Your task to perform on an android device: turn off airplane mode Image 0: 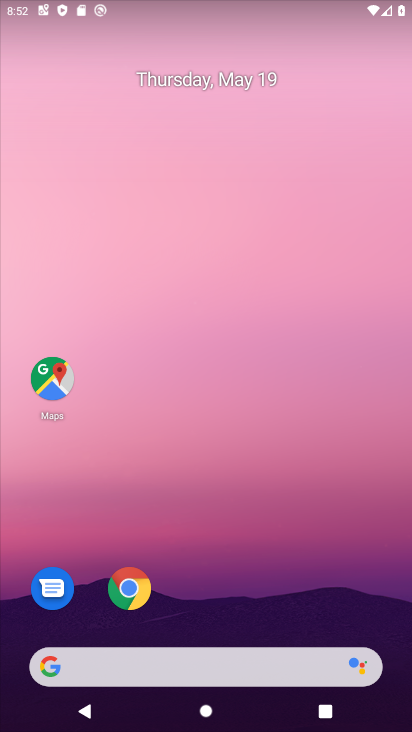
Step 0: drag from (239, 662) to (163, 9)
Your task to perform on an android device: turn off airplane mode Image 1: 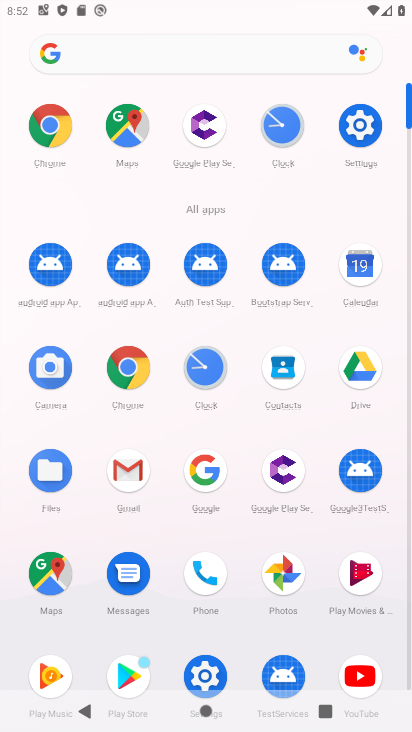
Step 1: click (372, 124)
Your task to perform on an android device: turn off airplane mode Image 2: 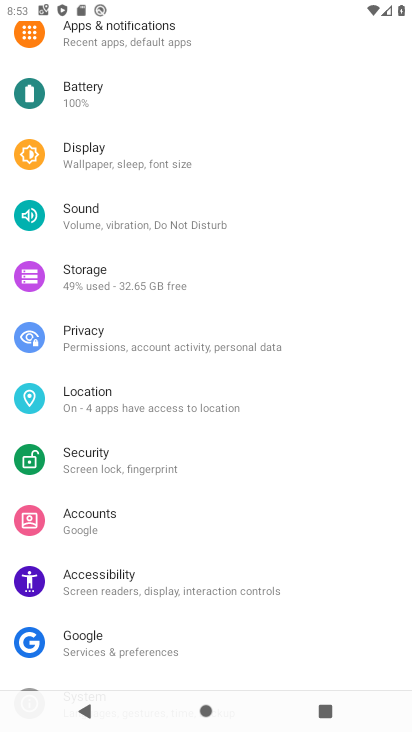
Step 2: drag from (192, 67) to (160, 718)
Your task to perform on an android device: turn off airplane mode Image 3: 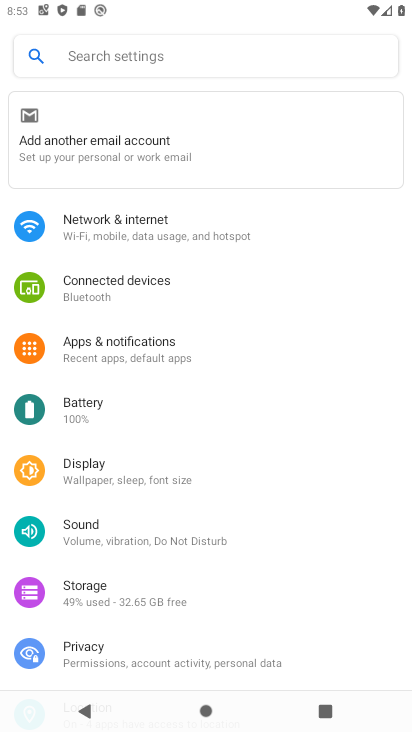
Step 3: click (105, 238)
Your task to perform on an android device: turn off airplane mode Image 4: 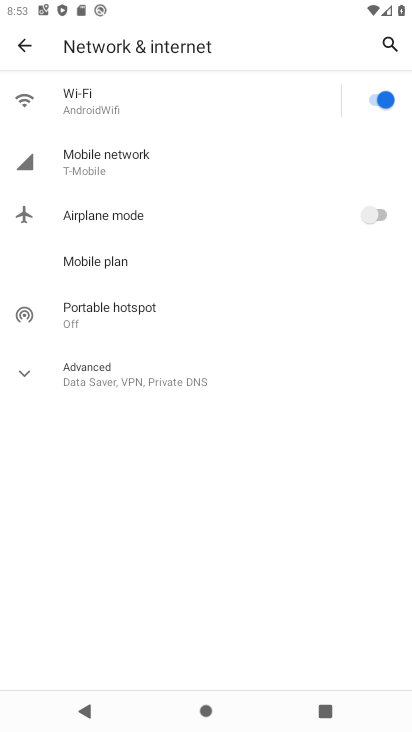
Step 4: task complete